Your task to perform on an android device: turn off javascript in the chrome app Image 0: 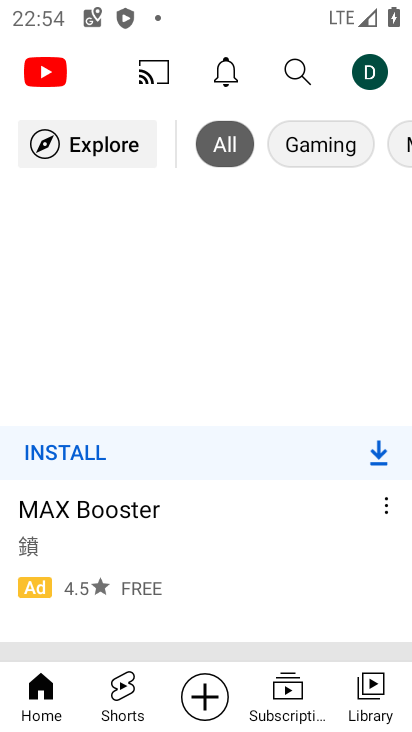
Step 0: press home button
Your task to perform on an android device: turn off javascript in the chrome app Image 1: 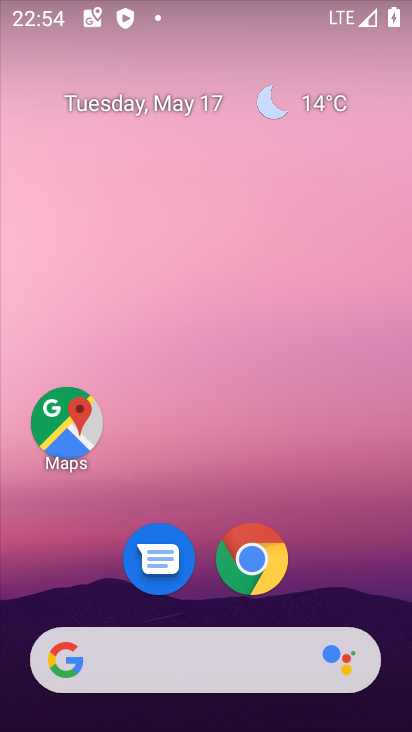
Step 1: click (264, 541)
Your task to perform on an android device: turn off javascript in the chrome app Image 2: 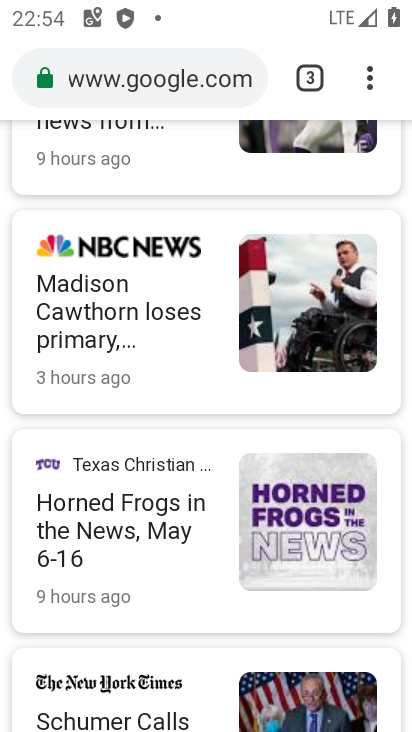
Step 2: drag from (376, 83) to (207, 612)
Your task to perform on an android device: turn off javascript in the chrome app Image 3: 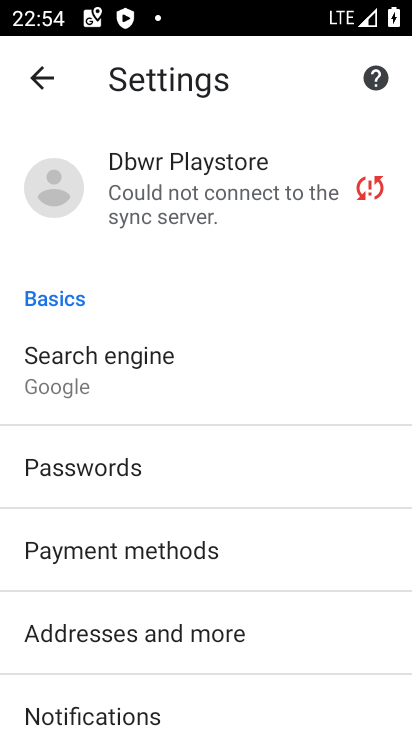
Step 3: drag from (193, 574) to (232, 258)
Your task to perform on an android device: turn off javascript in the chrome app Image 4: 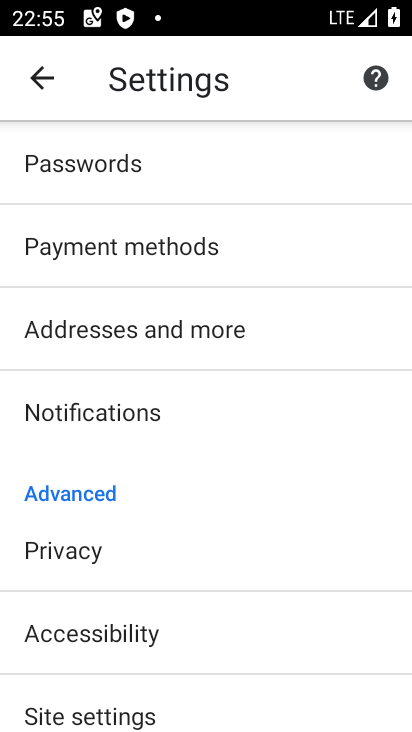
Step 4: click (152, 708)
Your task to perform on an android device: turn off javascript in the chrome app Image 5: 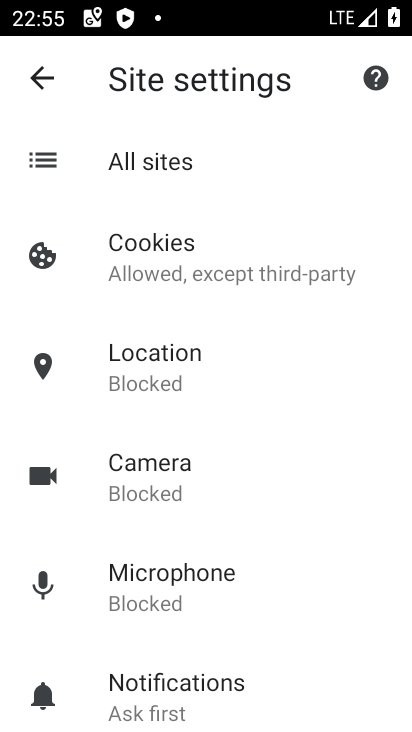
Step 5: drag from (289, 634) to (345, 161)
Your task to perform on an android device: turn off javascript in the chrome app Image 6: 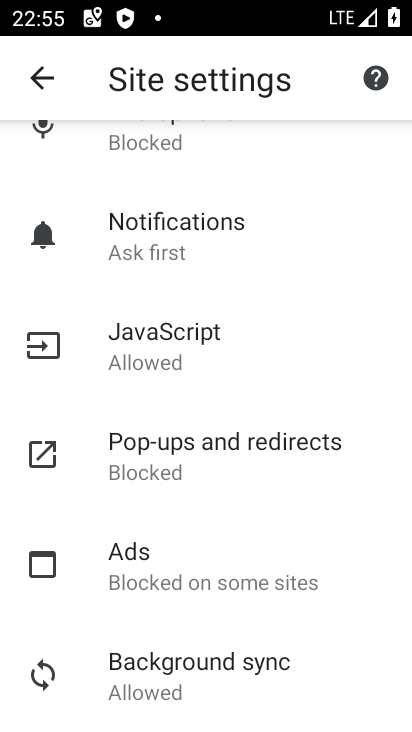
Step 6: click (177, 340)
Your task to perform on an android device: turn off javascript in the chrome app Image 7: 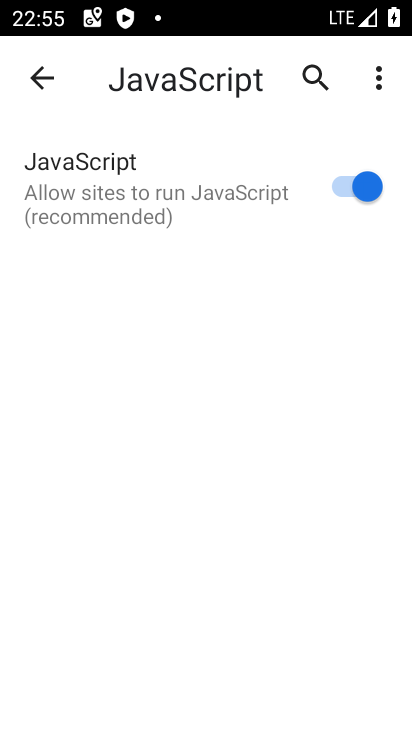
Step 7: click (348, 184)
Your task to perform on an android device: turn off javascript in the chrome app Image 8: 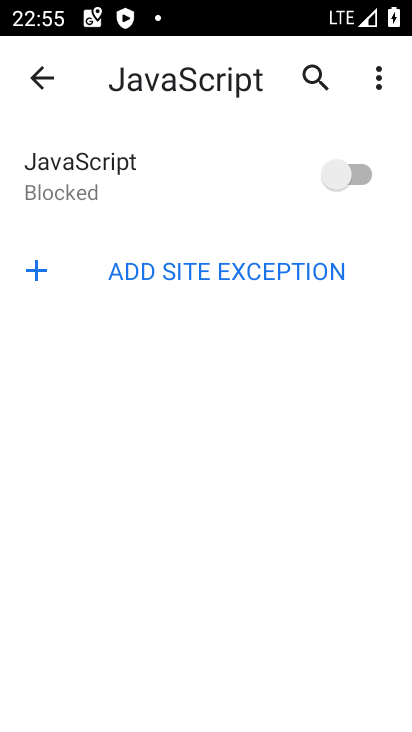
Step 8: task complete